Your task to perform on an android device: open a new tab in the chrome app Image 0: 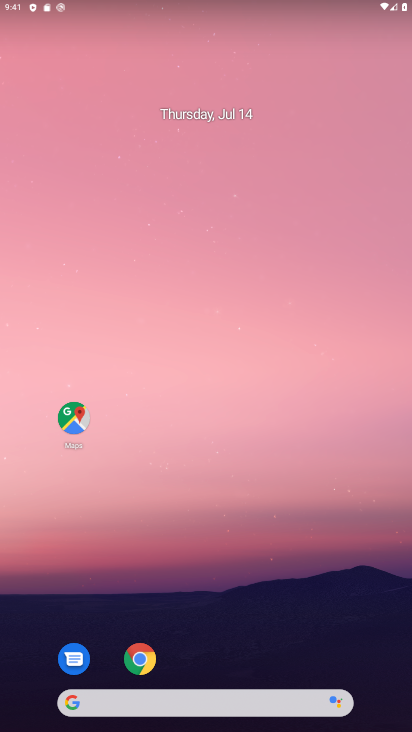
Step 0: click (138, 666)
Your task to perform on an android device: open a new tab in the chrome app Image 1: 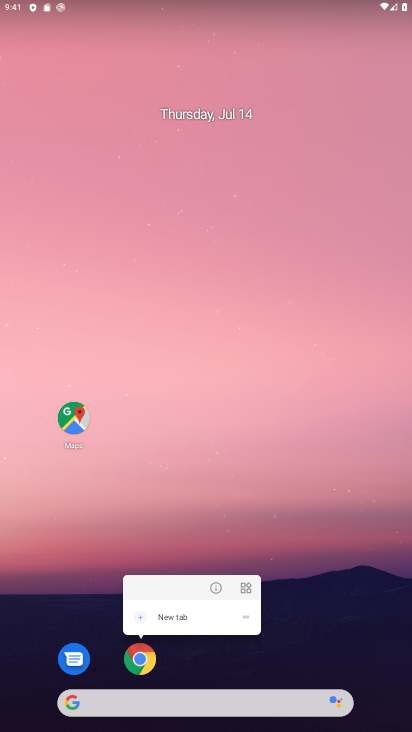
Step 1: click (138, 661)
Your task to perform on an android device: open a new tab in the chrome app Image 2: 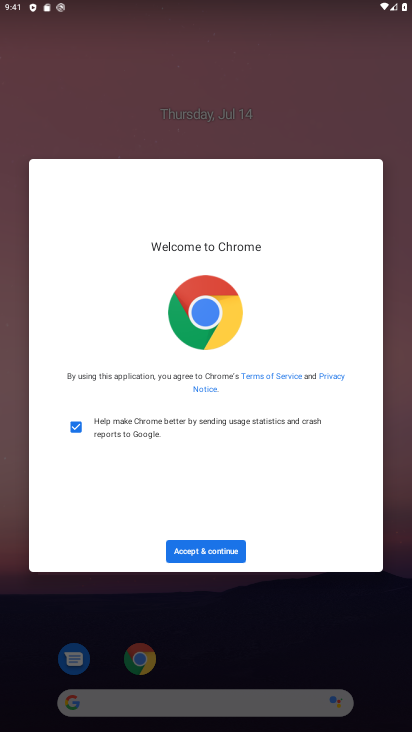
Step 2: click (173, 555)
Your task to perform on an android device: open a new tab in the chrome app Image 3: 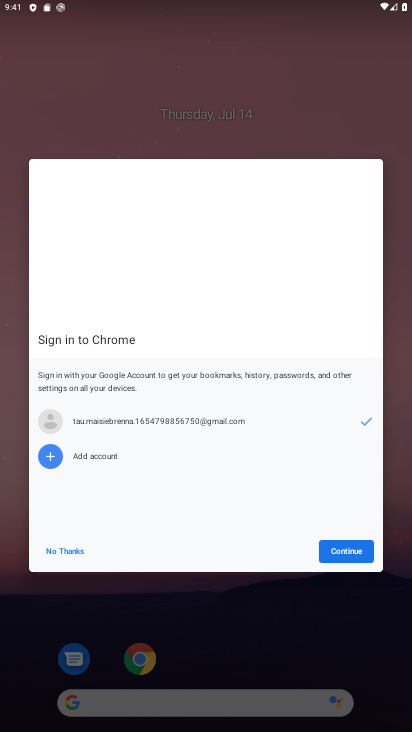
Step 3: click (356, 555)
Your task to perform on an android device: open a new tab in the chrome app Image 4: 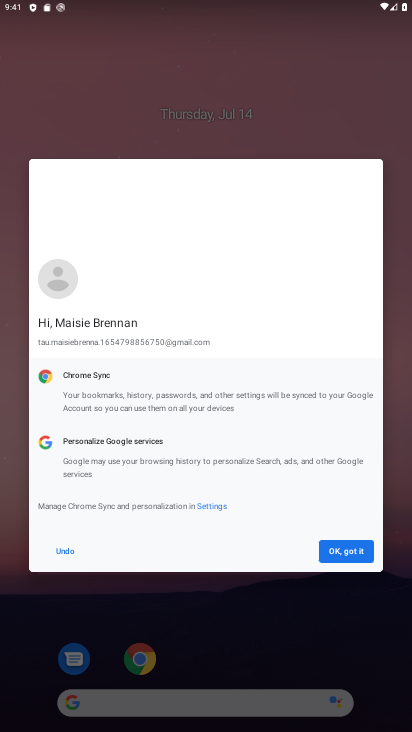
Step 4: click (355, 554)
Your task to perform on an android device: open a new tab in the chrome app Image 5: 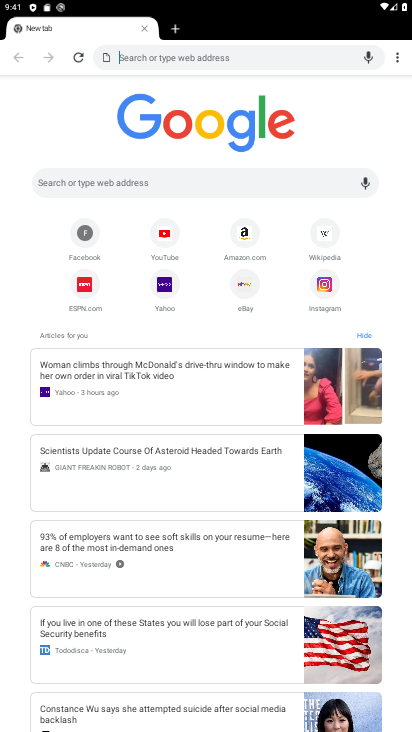
Step 5: click (388, 55)
Your task to perform on an android device: open a new tab in the chrome app Image 6: 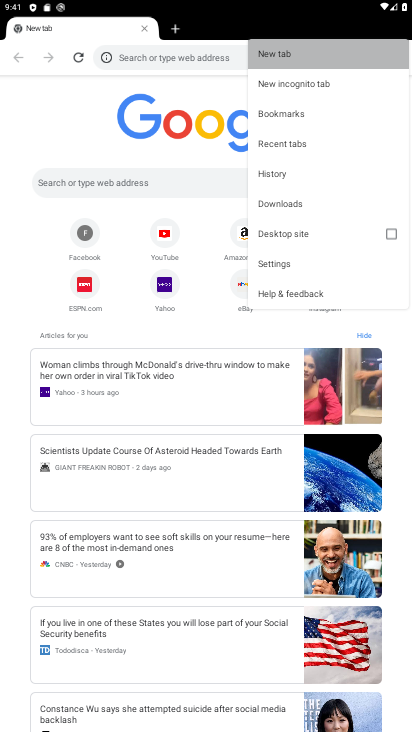
Step 6: click (388, 56)
Your task to perform on an android device: open a new tab in the chrome app Image 7: 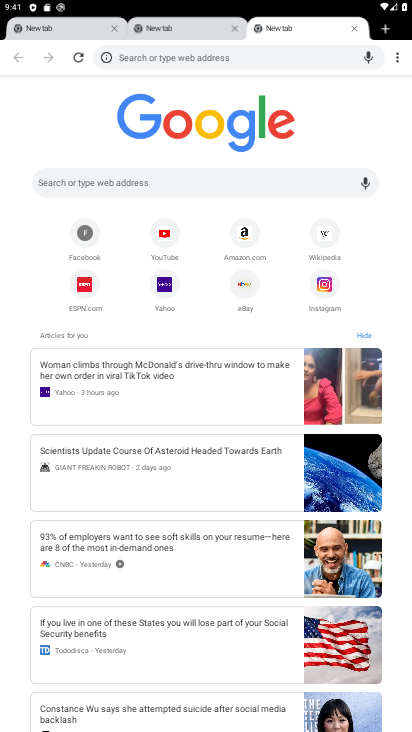
Step 7: task complete